Your task to perform on an android device: Go to battery settings Image 0: 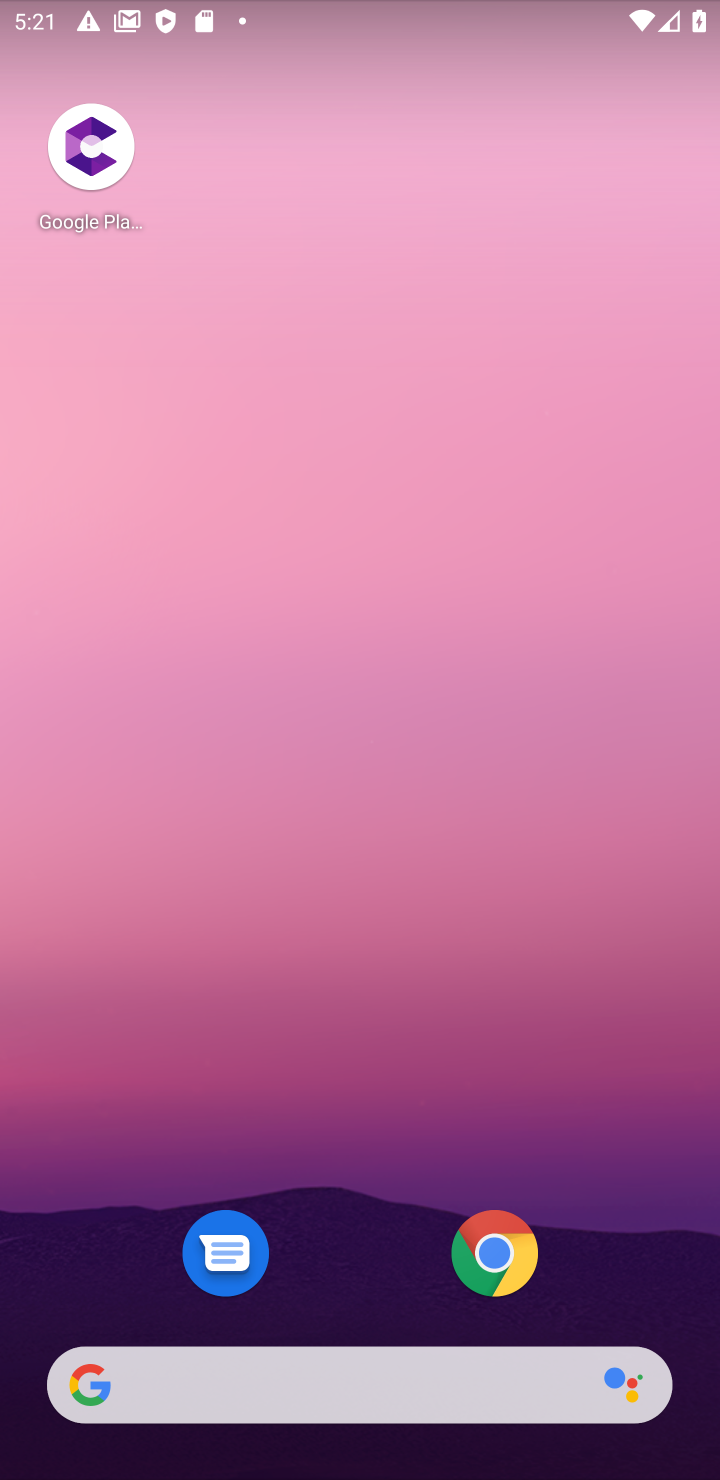
Step 0: drag from (355, 1222) to (450, 97)
Your task to perform on an android device: Go to battery settings Image 1: 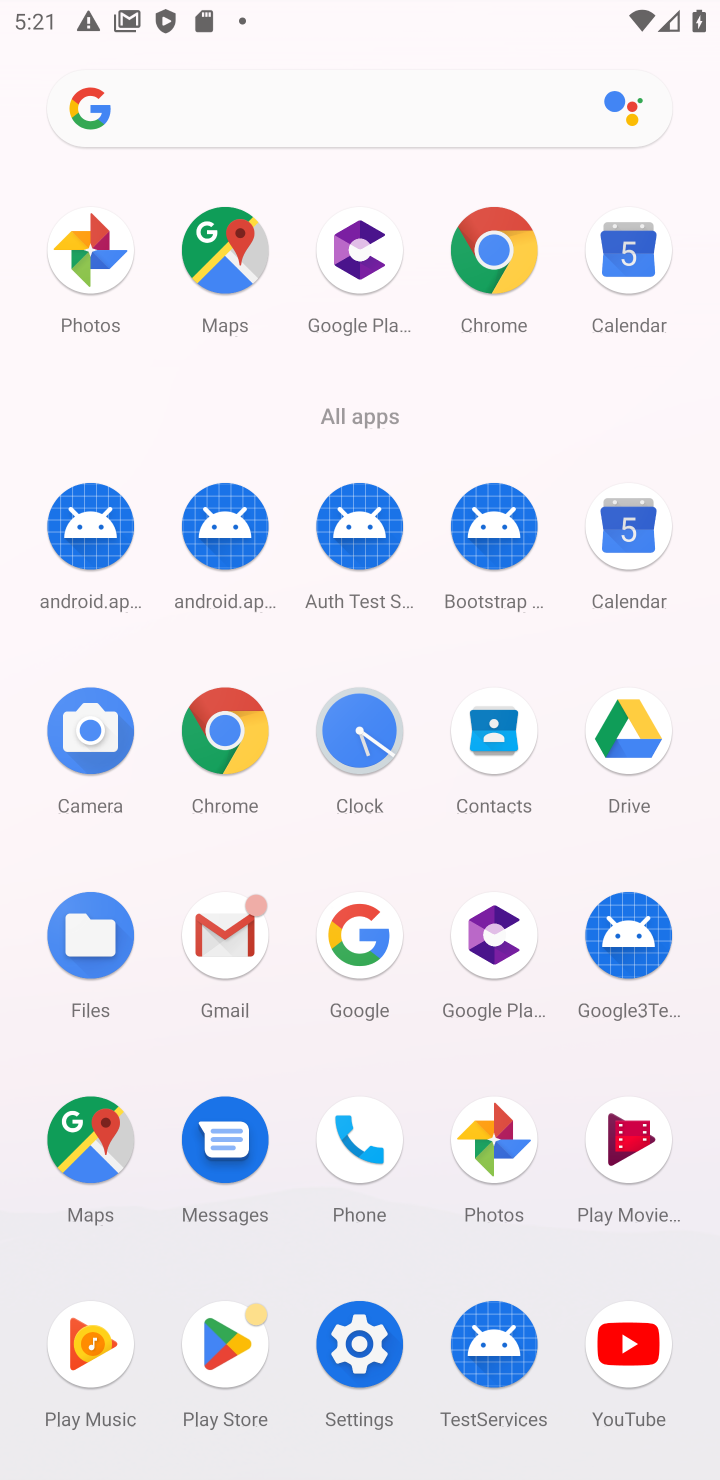
Step 1: click (350, 1348)
Your task to perform on an android device: Go to battery settings Image 2: 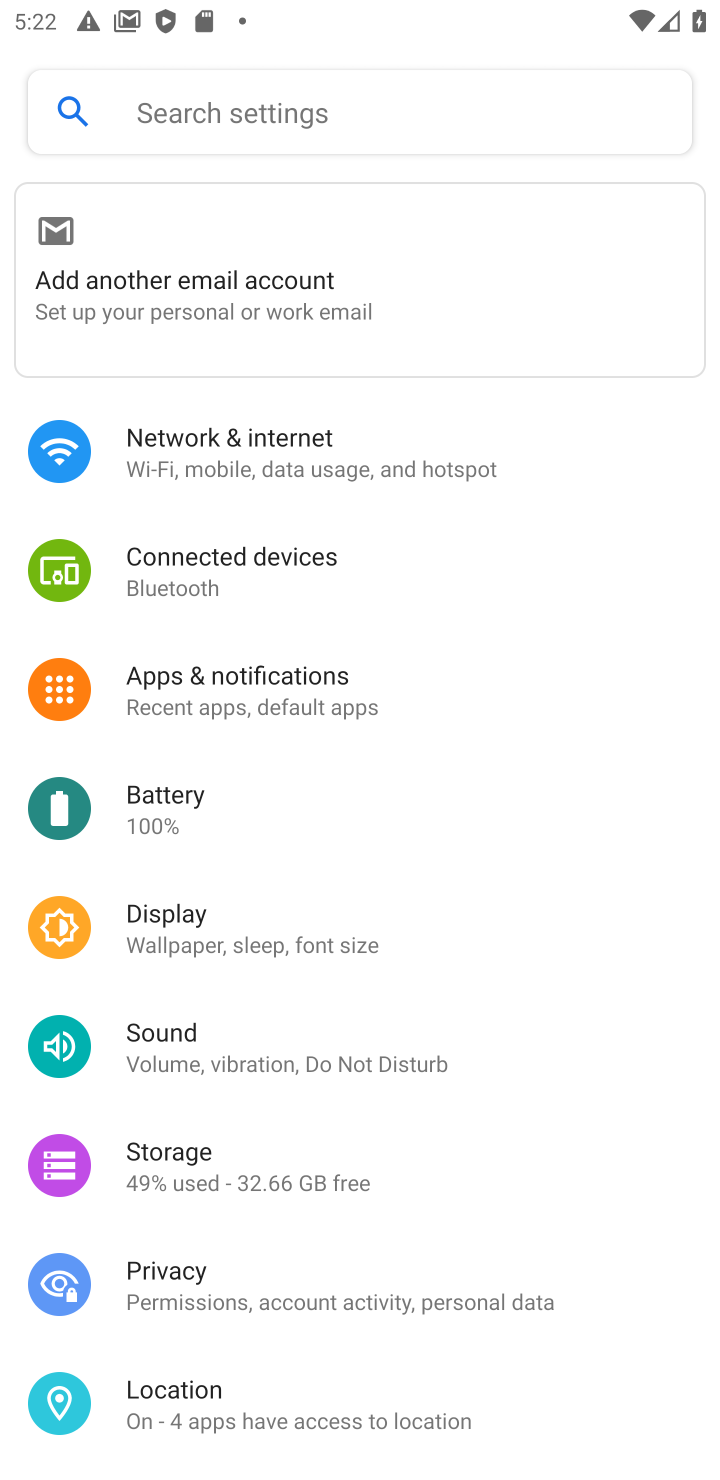
Step 2: click (165, 803)
Your task to perform on an android device: Go to battery settings Image 3: 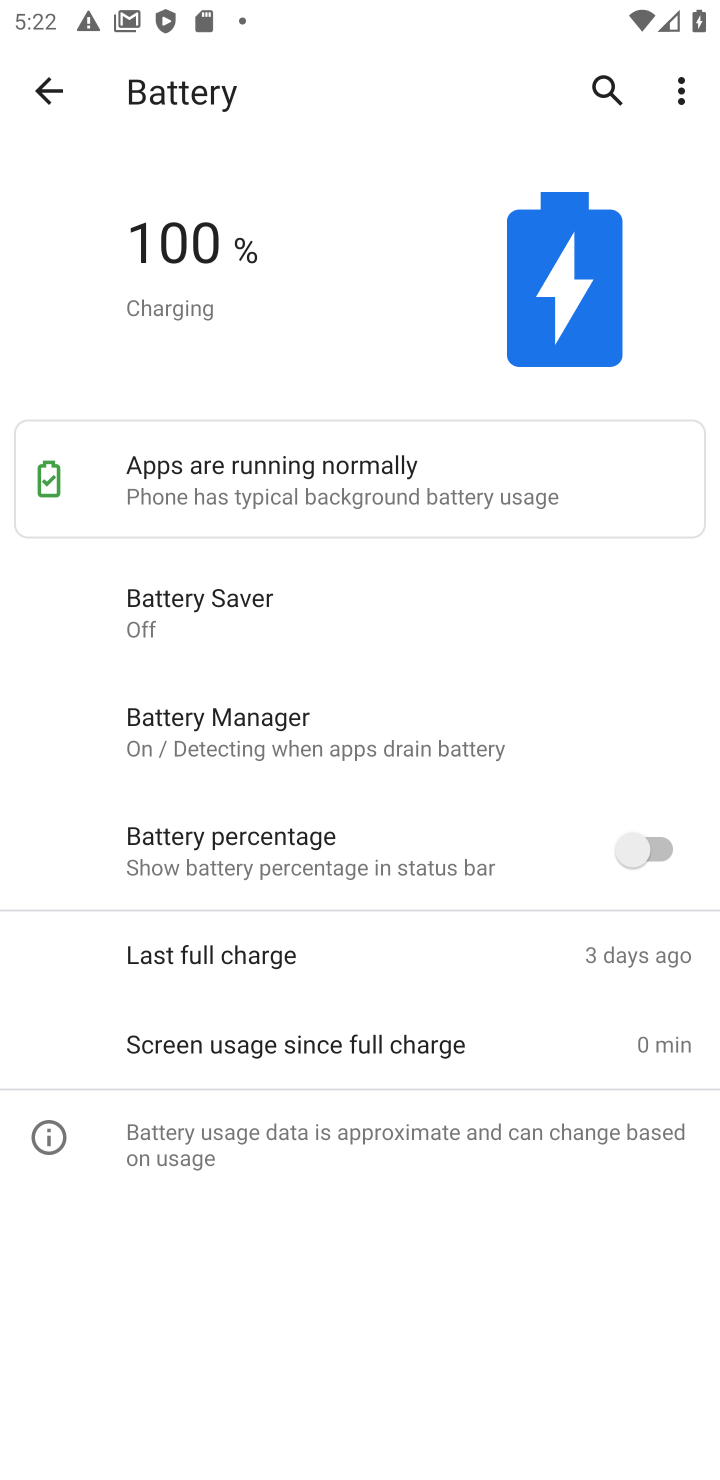
Step 3: task complete